Your task to perform on an android device: delete location history Image 0: 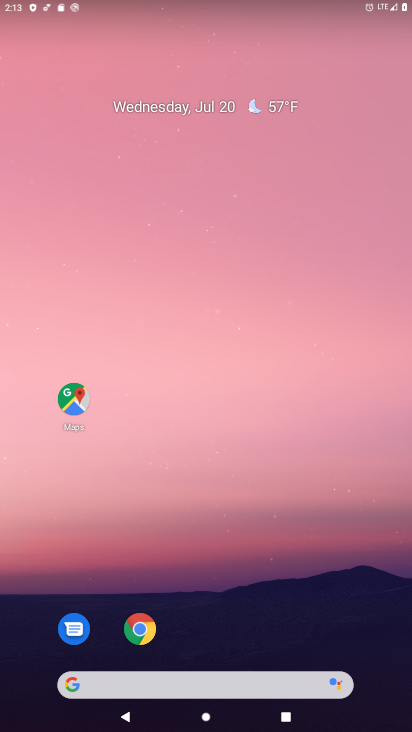
Step 0: click (73, 399)
Your task to perform on an android device: delete location history Image 1: 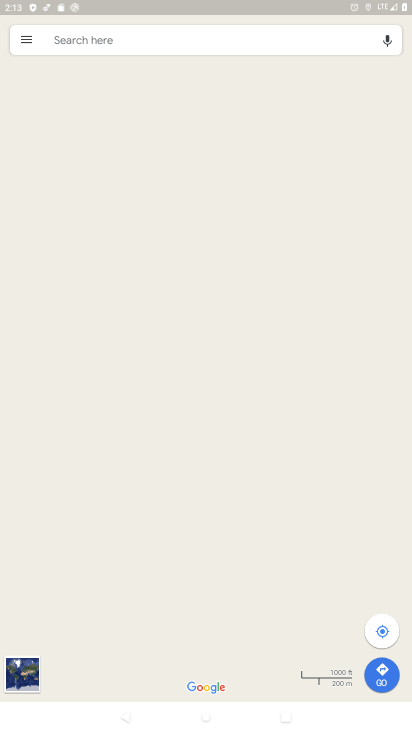
Step 1: click (24, 39)
Your task to perform on an android device: delete location history Image 2: 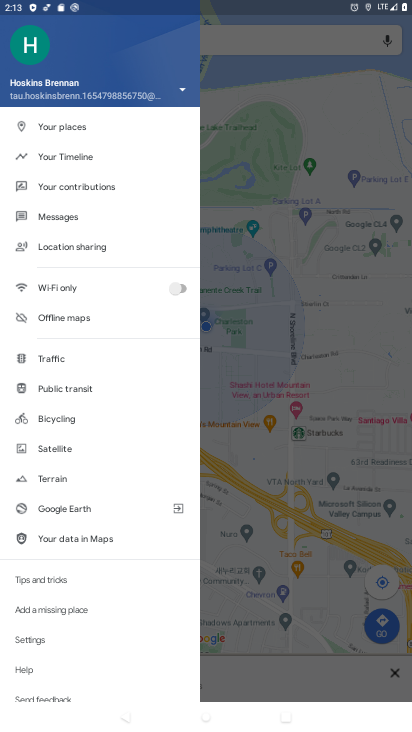
Step 2: click (27, 630)
Your task to perform on an android device: delete location history Image 3: 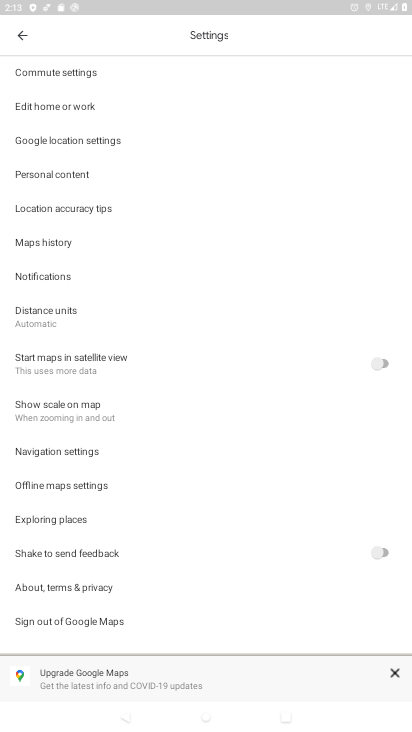
Step 3: click (49, 177)
Your task to perform on an android device: delete location history Image 4: 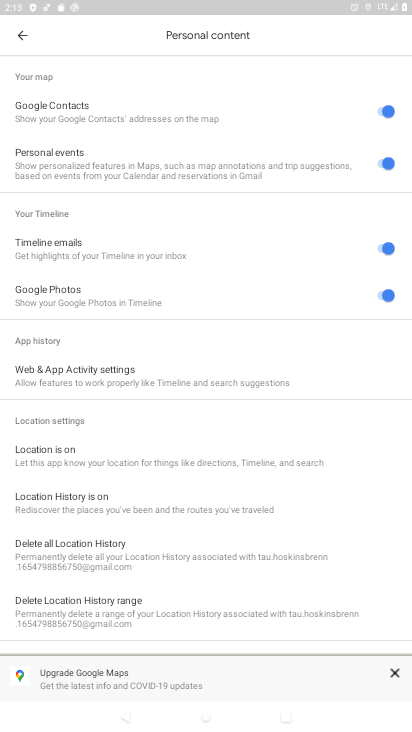
Step 4: click (57, 537)
Your task to perform on an android device: delete location history Image 5: 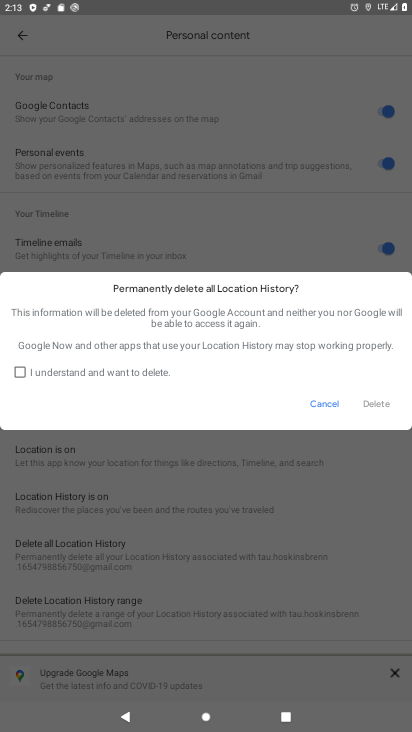
Step 5: click (19, 365)
Your task to perform on an android device: delete location history Image 6: 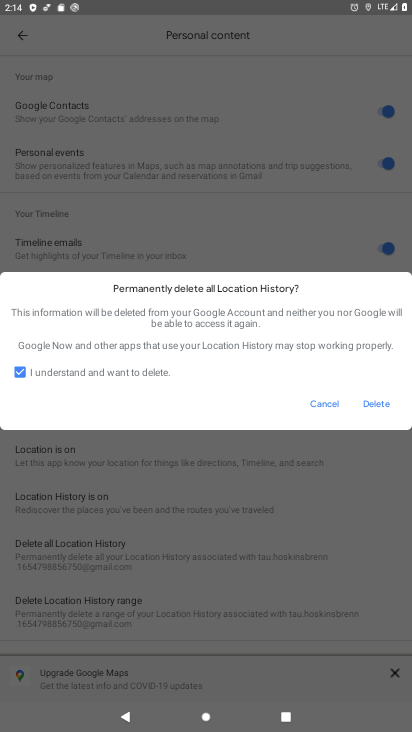
Step 6: click (375, 407)
Your task to perform on an android device: delete location history Image 7: 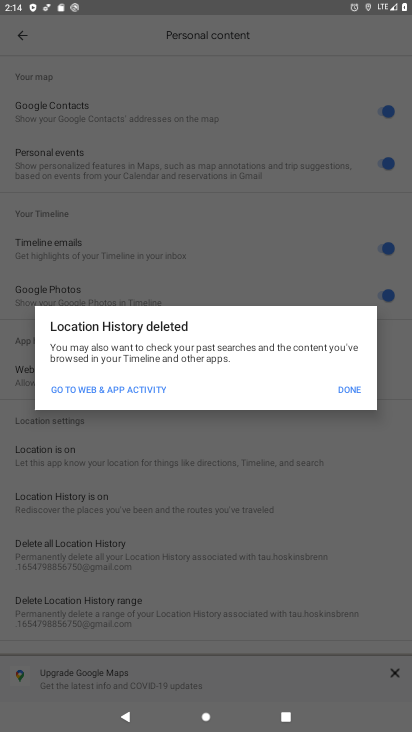
Step 7: click (347, 390)
Your task to perform on an android device: delete location history Image 8: 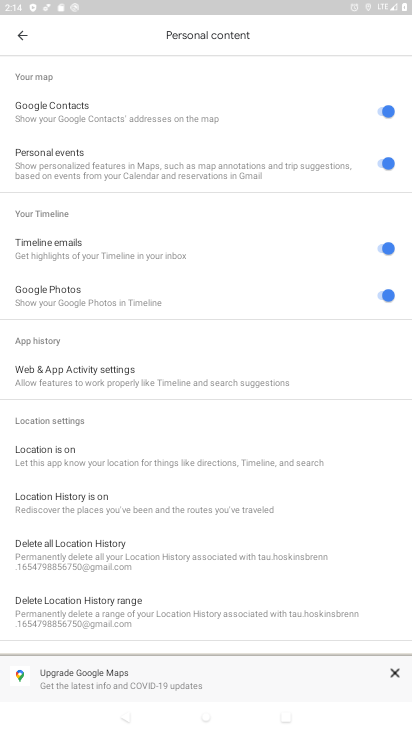
Step 8: task complete